Your task to perform on an android device: change the clock display to analog Image 0: 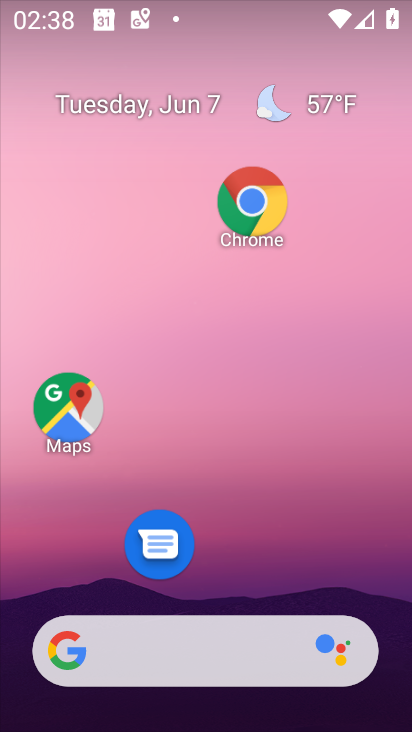
Step 0: drag from (239, 554) to (233, 270)
Your task to perform on an android device: change the clock display to analog Image 1: 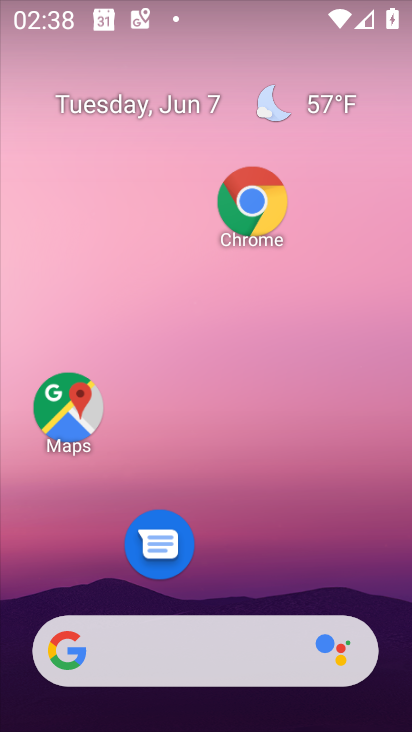
Step 1: drag from (264, 607) to (279, 327)
Your task to perform on an android device: change the clock display to analog Image 2: 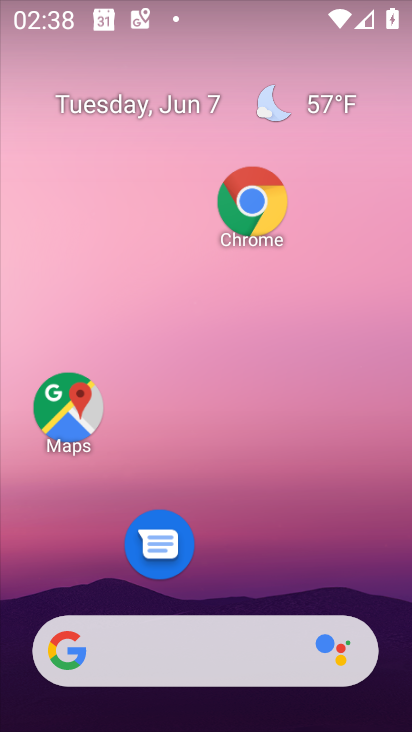
Step 2: drag from (277, 611) to (292, 260)
Your task to perform on an android device: change the clock display to analog Image 3: 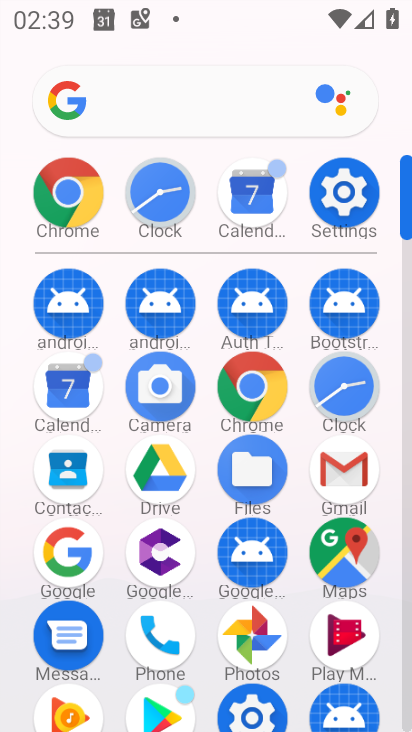
Step 3: click (340, 366)
Your task to perform on an android device: change the clock display to analog Image 4: 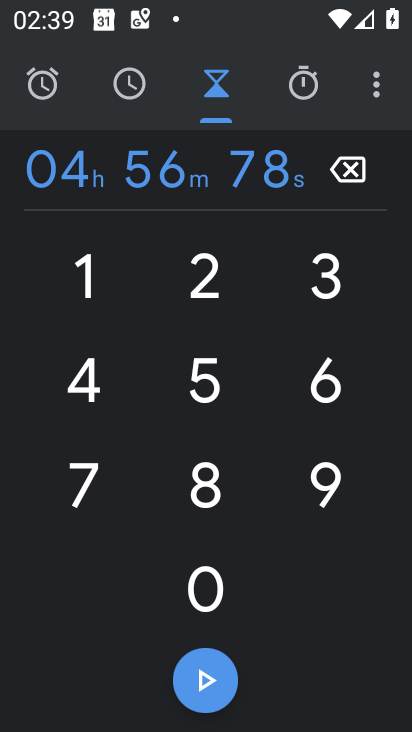
Step 4: click (374, 81)
Your task to perform on an android device: change the clock display to analog Image 5: 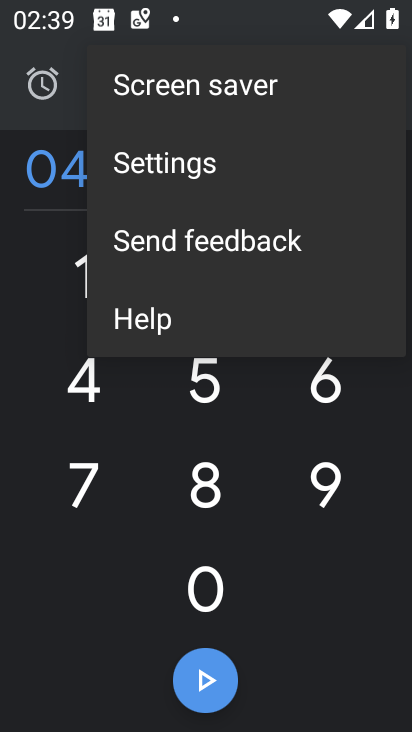
Step 5: click (162, 154)
Your task to perform on an android device: change the clock display to analog Image 6: 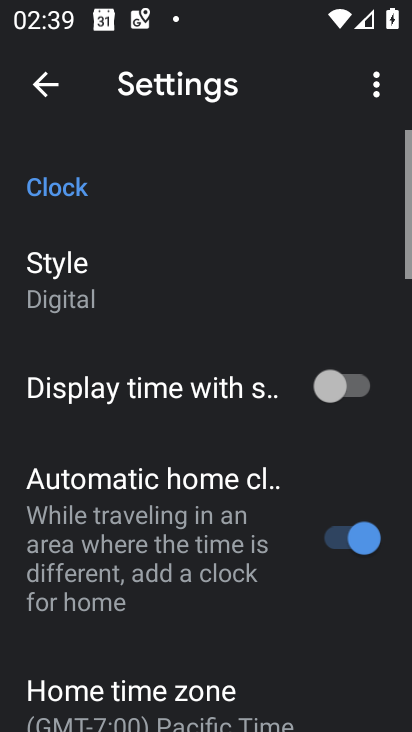
Step 6: click (59, 267)
Your task to perform on an android device: change the clock display to analog Image 7: 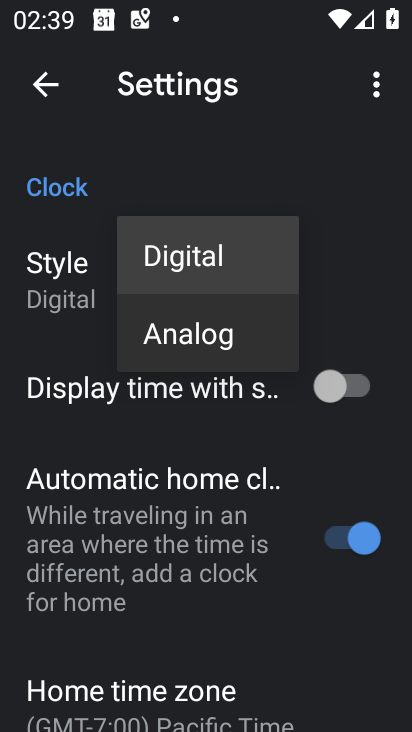
Step 7: click (180, 330)
Your task to perform on an android device: change the clock display to analog Image 8: 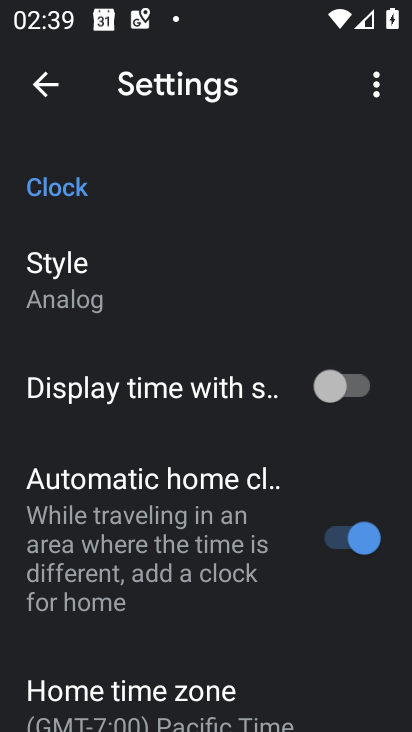
Step 8: task complete